Your task to perform on an android device: toggle wifi Image 0: 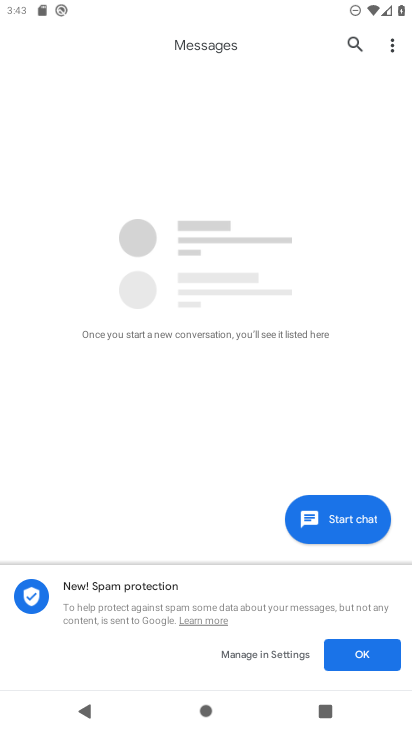
Step 0: press home button
Your task to perform on an android device: toggle wifi Image 1: 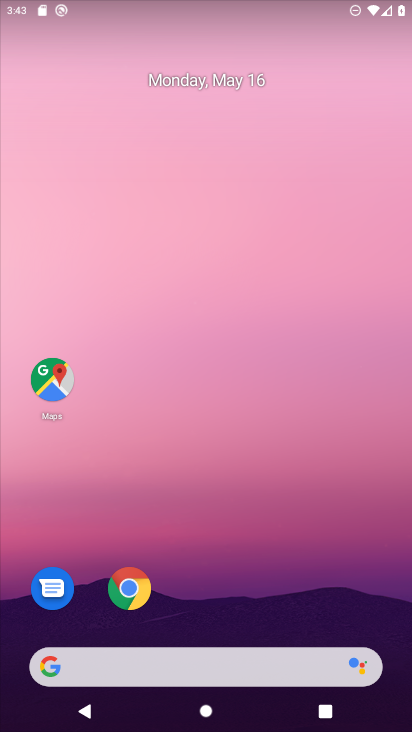
Step 1: drag from (319, 633) to (336, 0)
Your task to perform on an android device: toggle wifi Image 2: 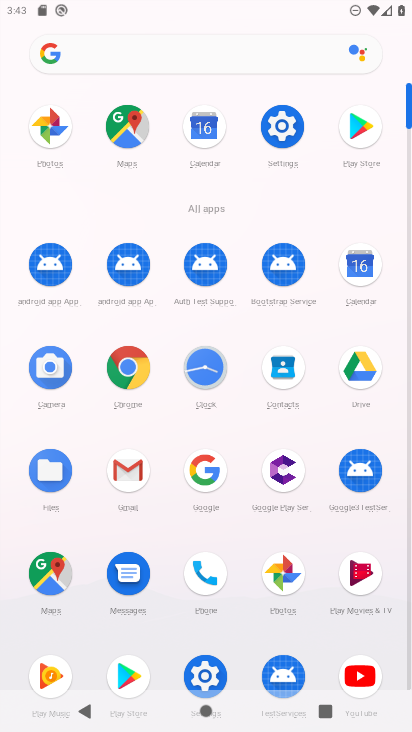
Step 2: click (287, 114)
Your task to perform on an android device: toggle wifi Image 3: 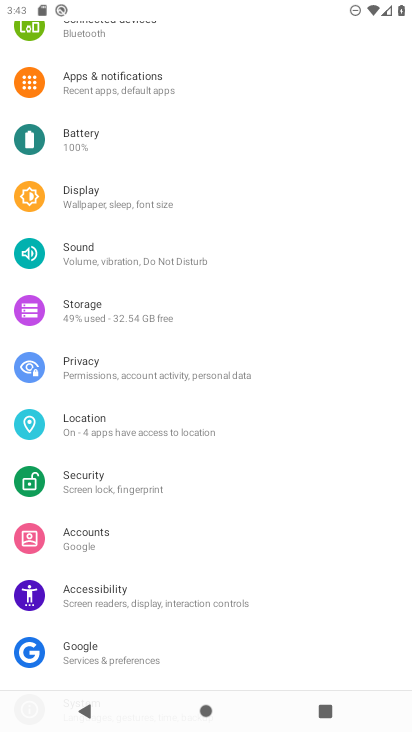
Step 3: drag from (287, 114) to (308, 601)
Your task to perform on an android device: toggle wifi Image 4: 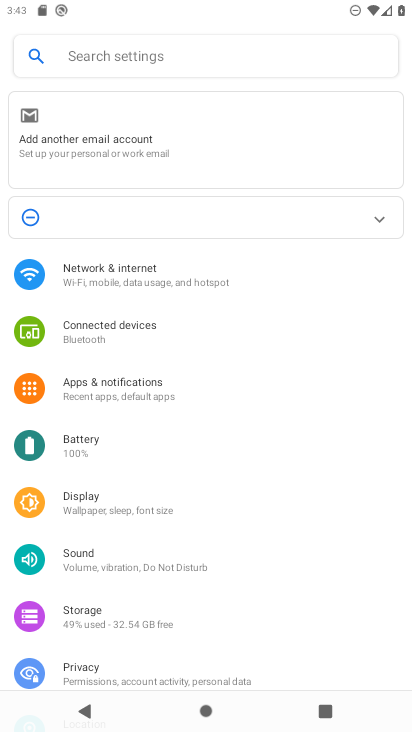
Step 4: click (125, 283)
Your task to perform on an android device: toggle wifi Image 5: 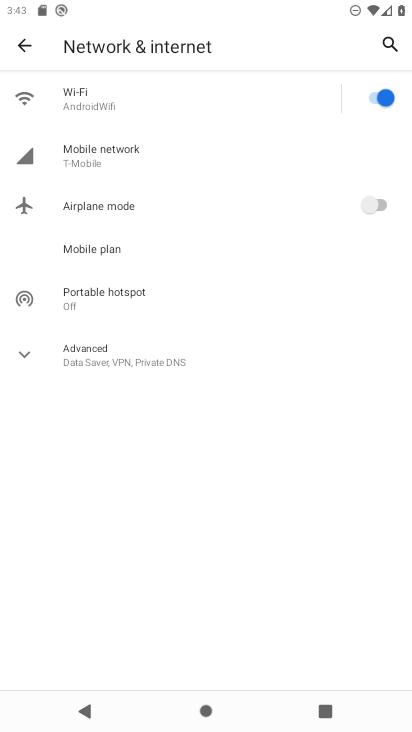
Step 5: click (385, 100)
Your task to perform on an android device: toggle wifi Image 6: 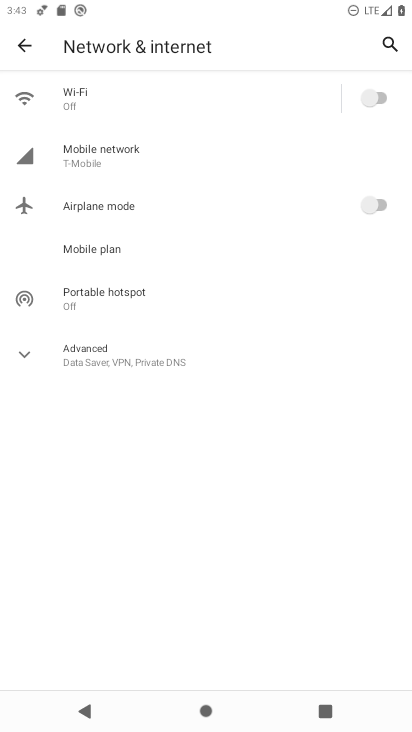
Step 6: task complete